Your task to perform on an android device: Open display settings Image 0: 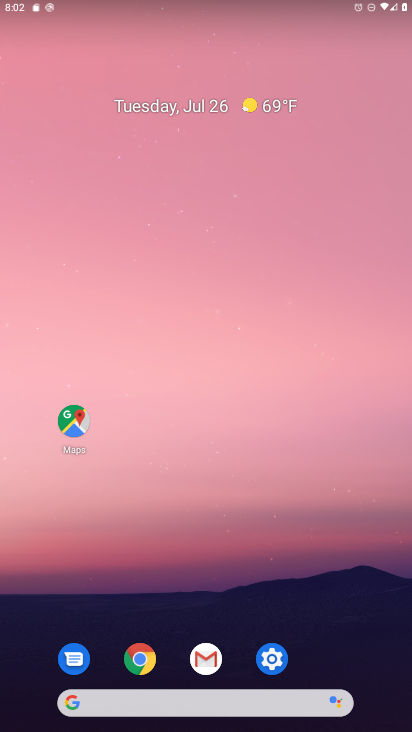
Step 0: click (271, 655)
Your task to perform on an android device: Open display settings Image 1: 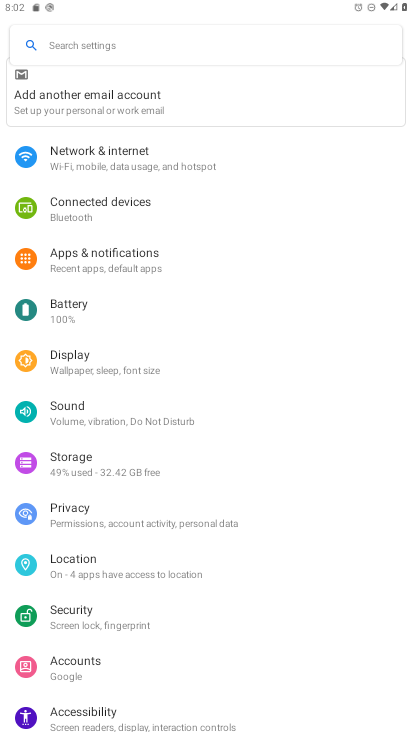
Step 1: click (76, 367)
Your task to perform on an android device: Open display settings Image 2: 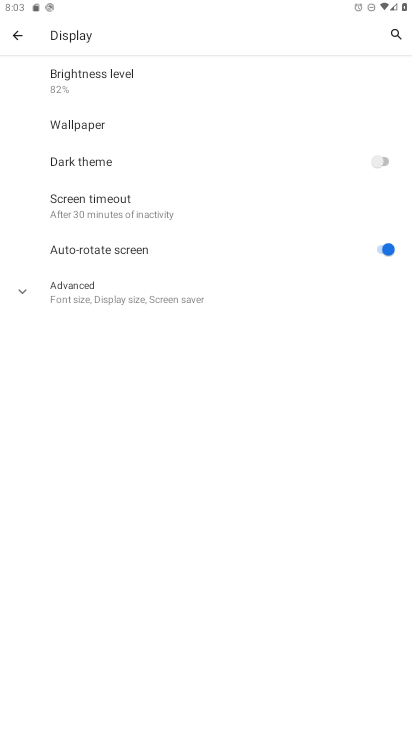
Step 2: task complete